Your task to perform on an android device: search for accent chairs on article.com Image 0: 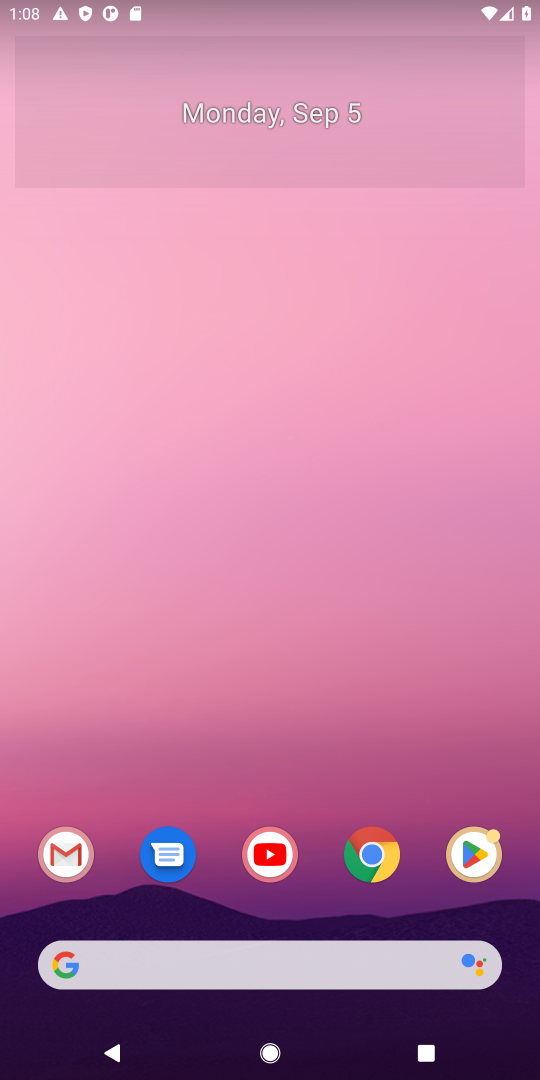
Step 0: click (376, 965)
Your task to perform on an android device: search for accent chairs on article.com Image 1: 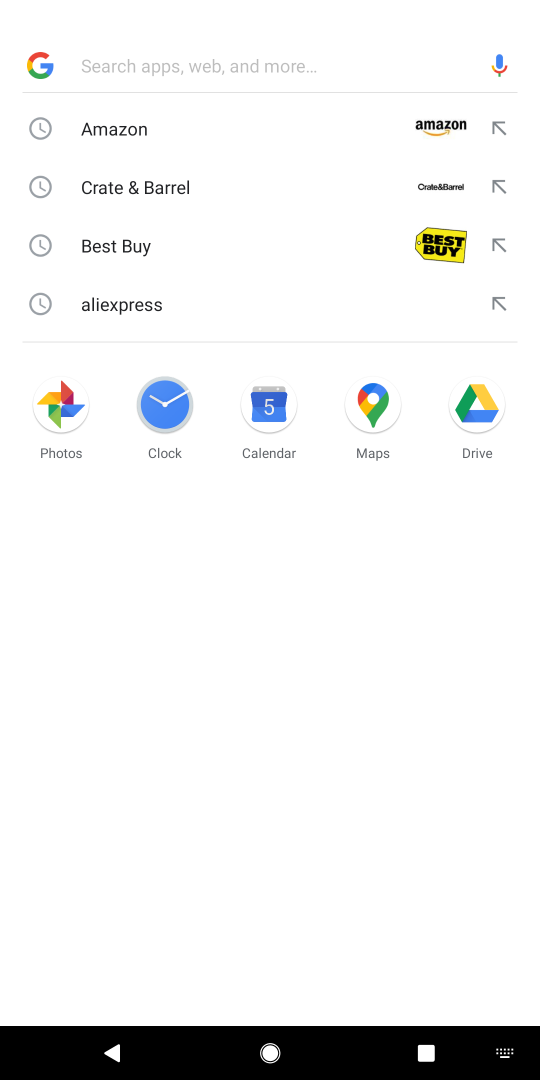
Step 1: type "article.com"
Your task to perform on an android device: search for accent chairs on article.com Image 2: 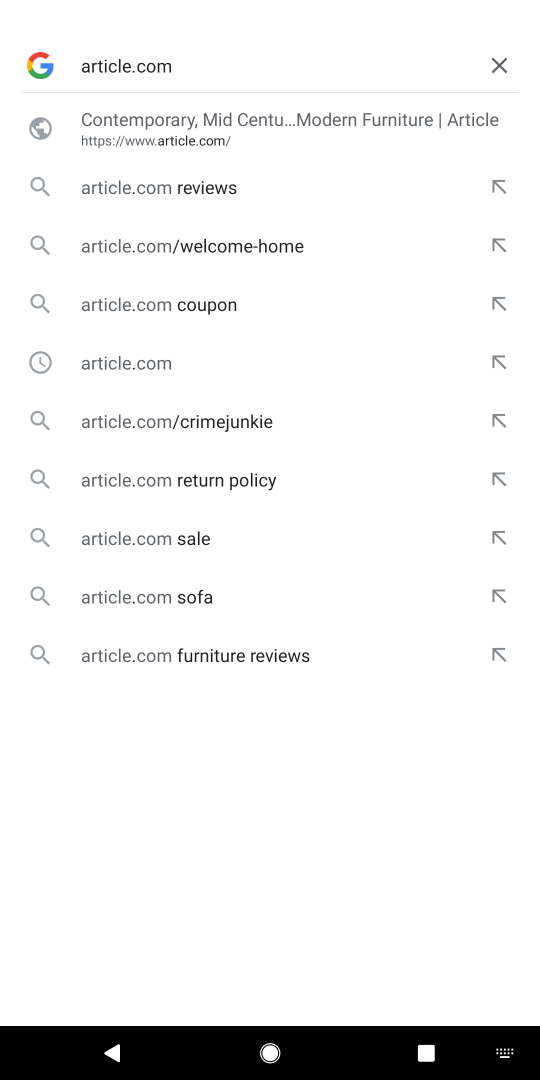
Step 2: press enter
Your task to perform on an android device: search for accent chairs on article.com Image 3: 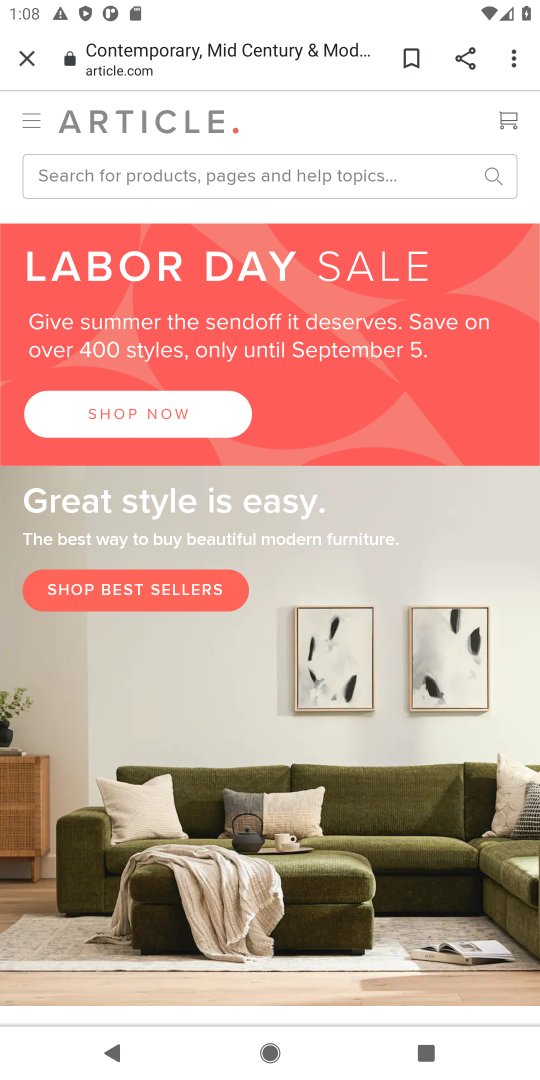
Step 3: click (298, 161)
Your task to perform on an android device: search for accent chairs on article.com Image 4: 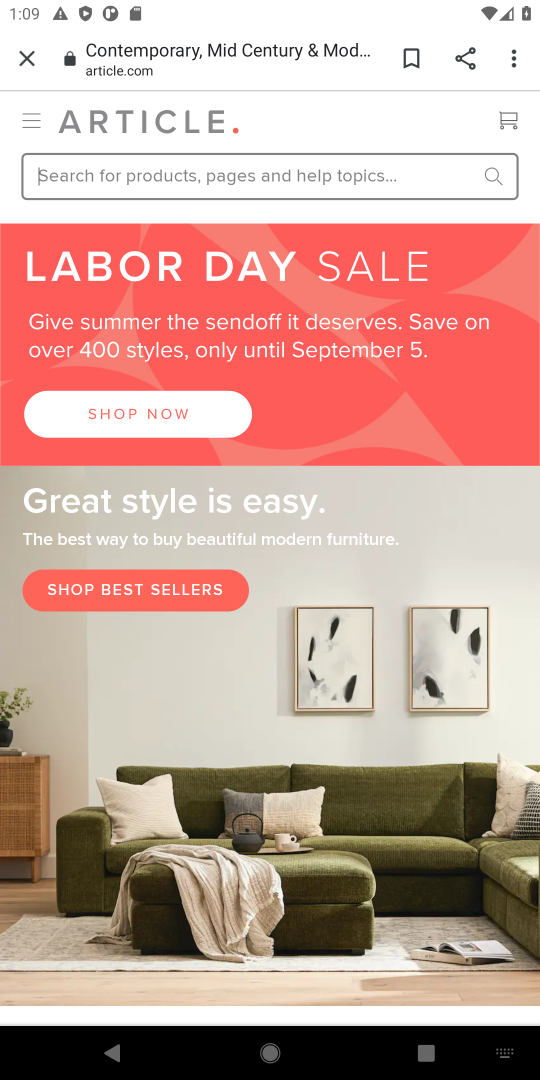
Step 4: press enter
Your task to perform on an android device: search for accent chairs on article.com Image 5: 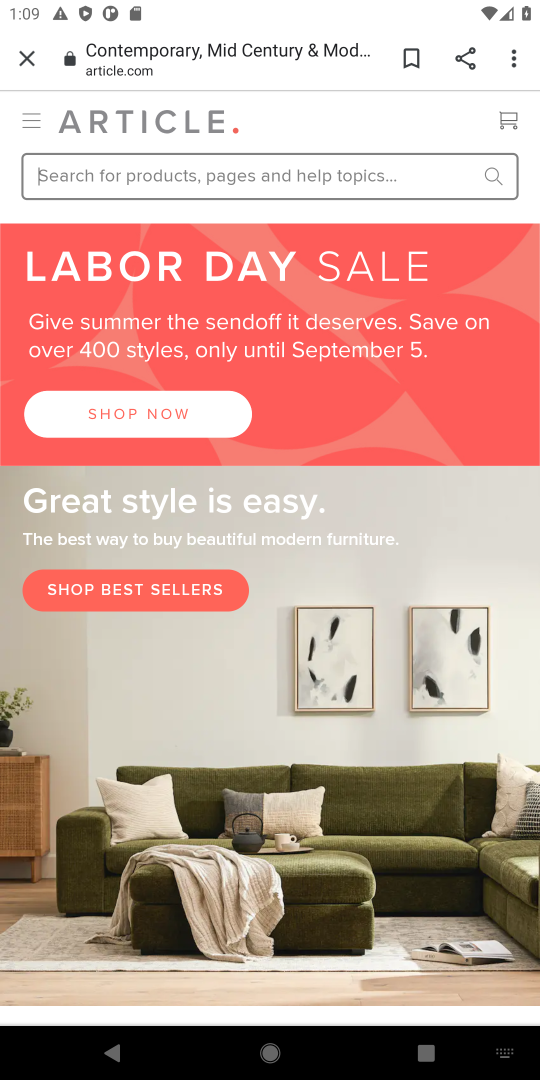
Step 5: type "accents chairs"
Your task to perform on an android device: search for accent chairs on article.com Image 6: 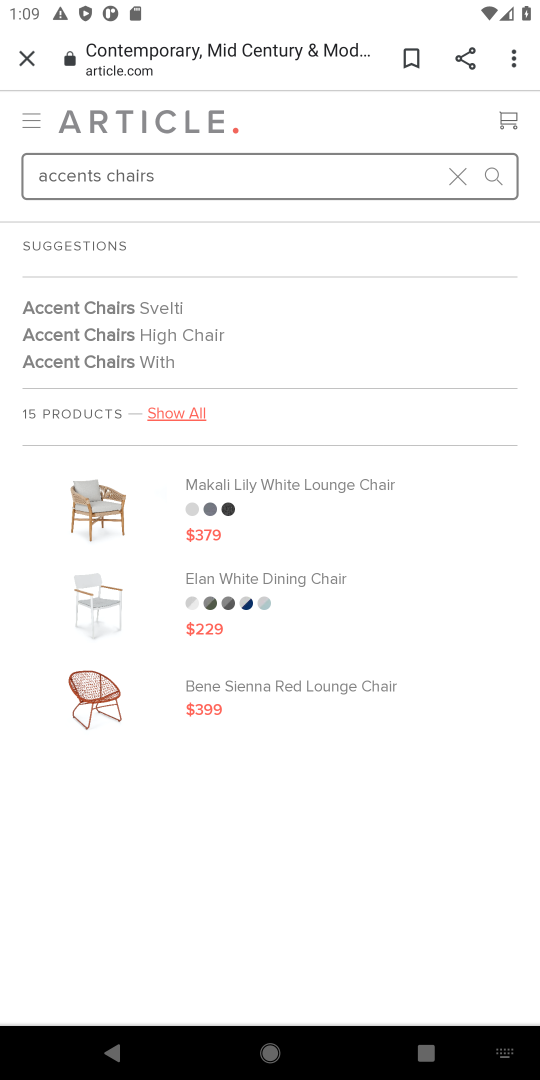
Step 6: task complete